Your task to perform on an android device: clear all cookies in the chrome app Image 0: 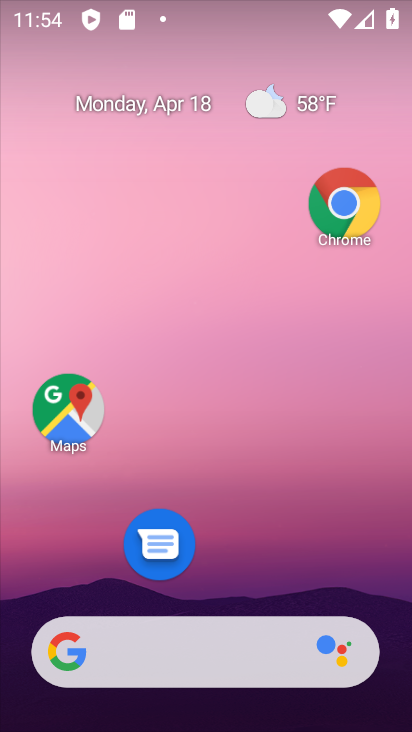
Step 0: drag from (266, 523) to (284, 135)
Your task to perform on an android device: clear all cookies in the chrome app Image 1: 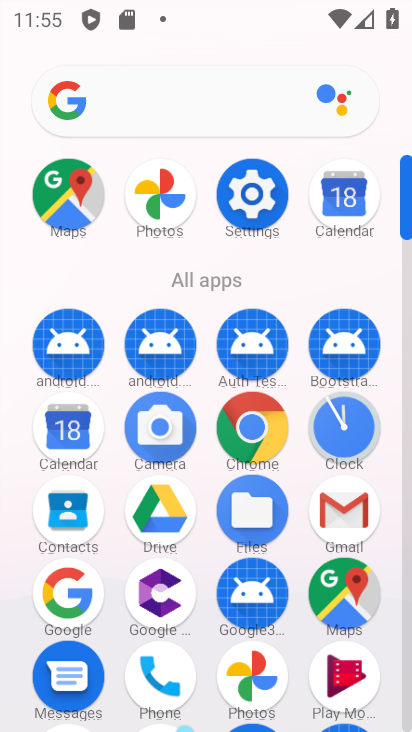
Step 1: click (258, 433)
Your task to perform on an android device: clear all cookies in the chrome app Image 2: 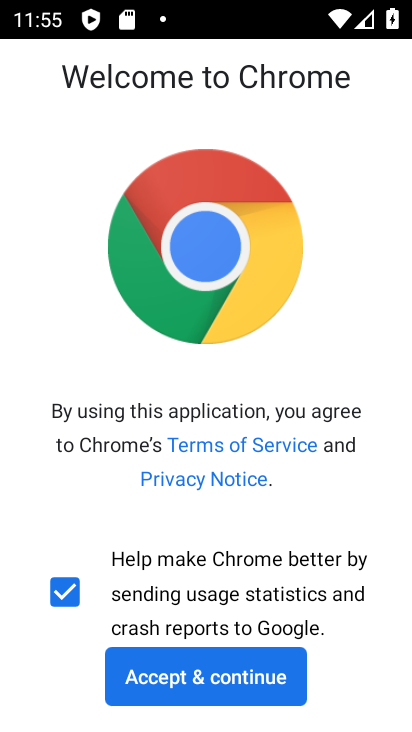
Step 2: click (242, 670)
Your task to perform on an android device: clear all cookies in the chrome app Image 3: 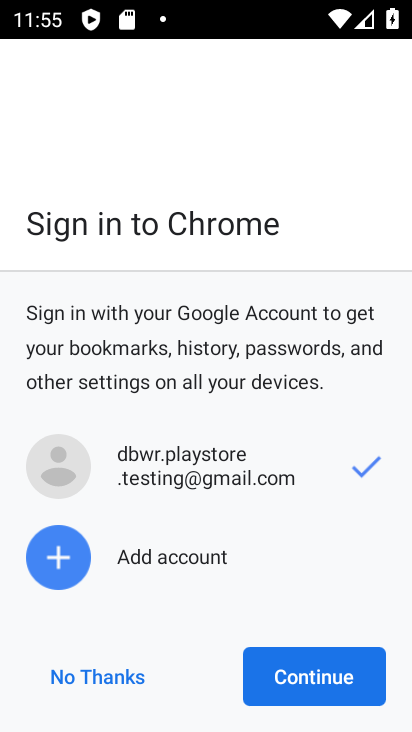
Step 3: click (278, 677)
Your task to perform on an android device: clear all cookies in the chrome app Image 4: 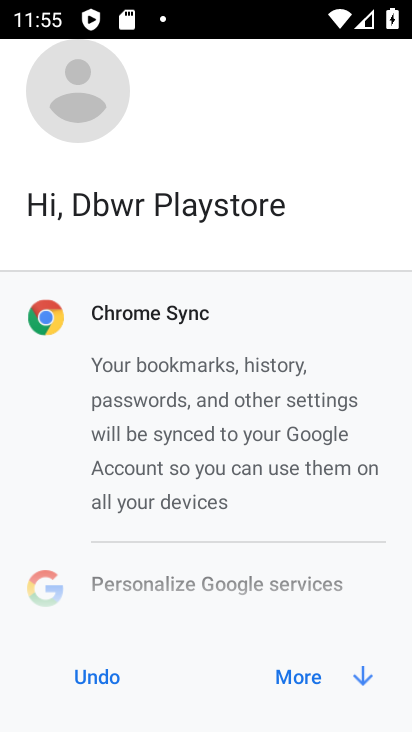
Step 4: click (285, 677)
Your task to perform on an android device: clear all cookies in the chrome app Image 5: 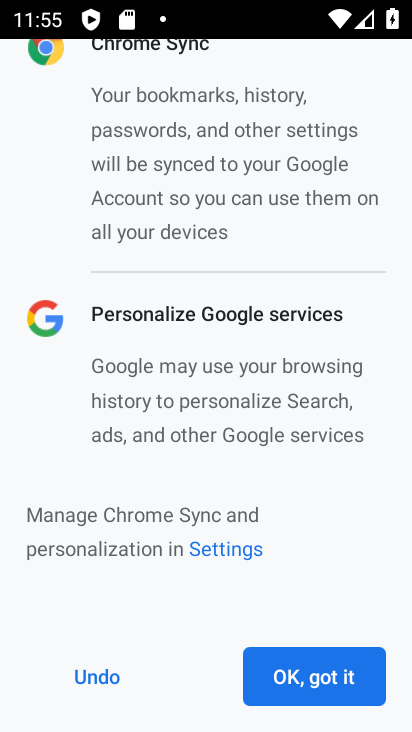
Step 5: click (285, 677)
Your task to perform on an android device: clear all cookies in the chrome app Image 6: 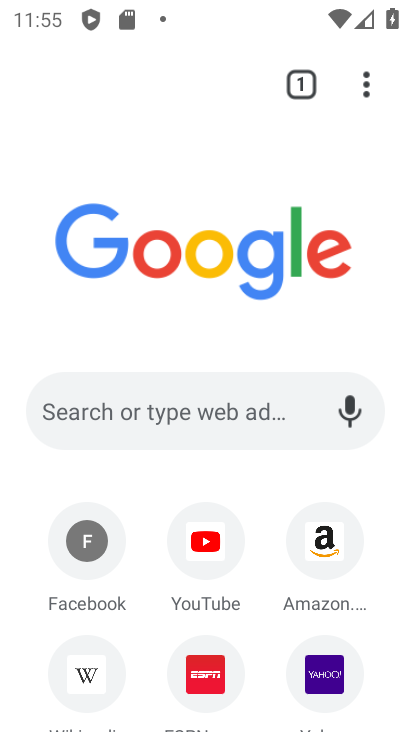
Step 6: click (367, 90)
Your task to perform on an android device: clear all cookies in the chrome app Image 7: 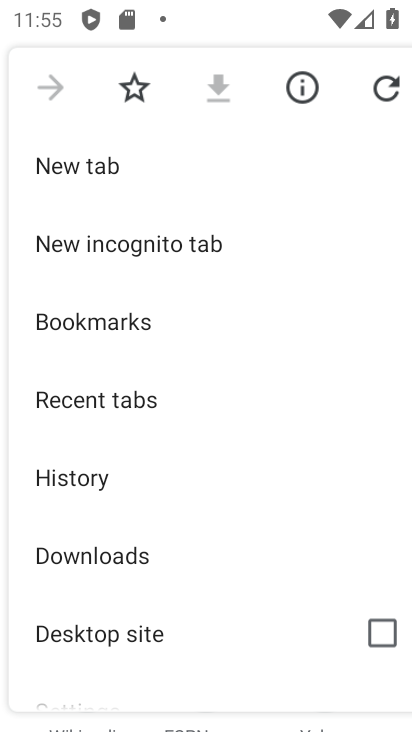
Step 7: click (59, 475)
Your task to perform on an android device: clear all cookies in the chrome app Image 8: 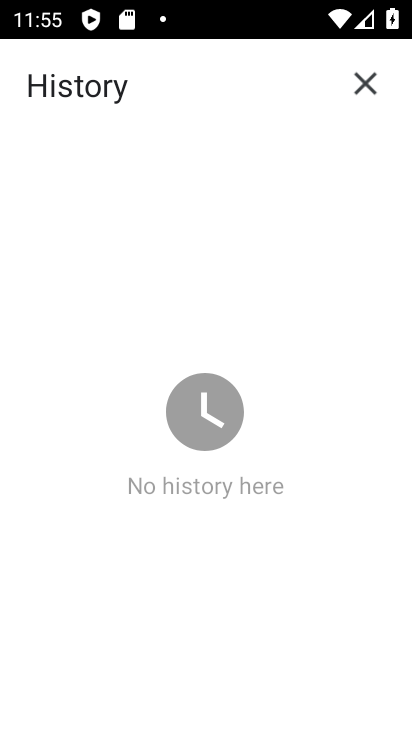
Step 8: task complete